Your task to perform on an android device: turn on wifi Image 0: 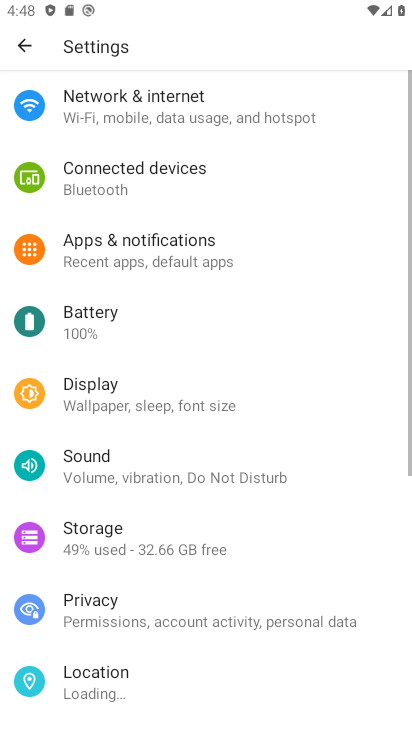
Step 0: press home button
Your task to perform on an android device: turn on wifi Image 1: 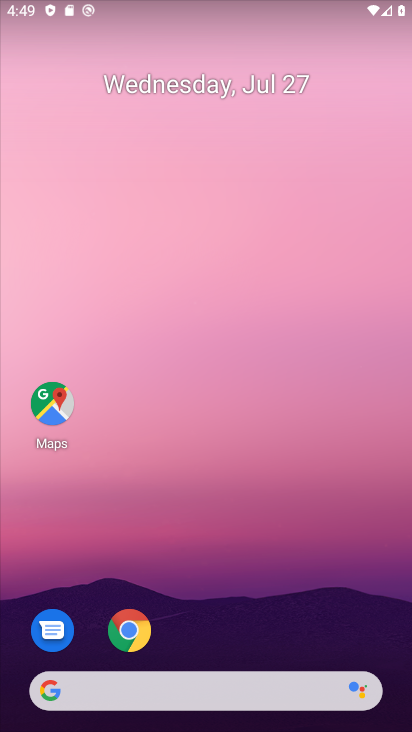
Step 1: drag from (318, 617) to (248, 4)
Your task to perform on an android device: turn on wifi Image 2: 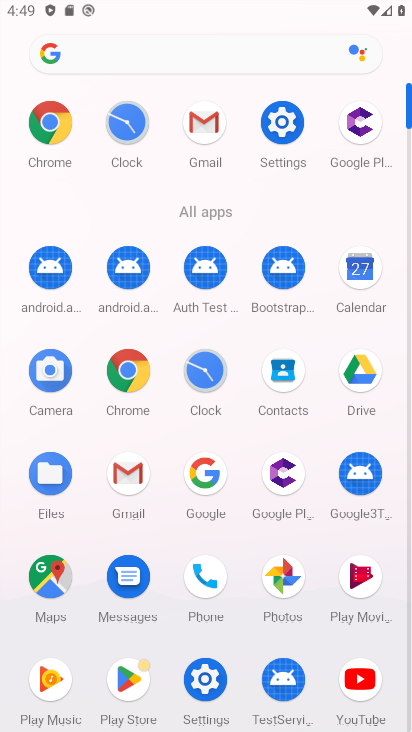
Step 2: click (276, 141)
Your task to perform on an android device: turn on wifi Image 3: 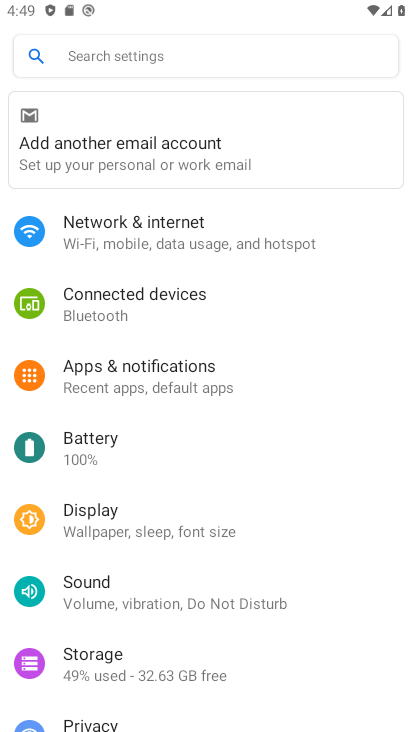
Step 3: click (265, 216)
Your task to perform on an android device: turn on wifi Image 4: 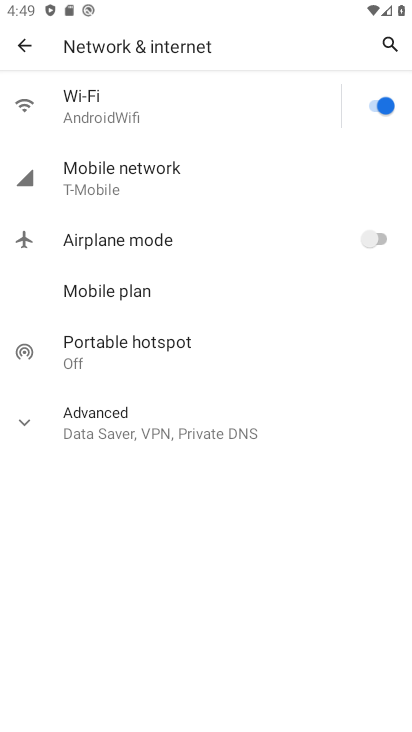
Step 4: task complete